Your task to perform on an android device: turn on javascript in the chrome app Image 0: 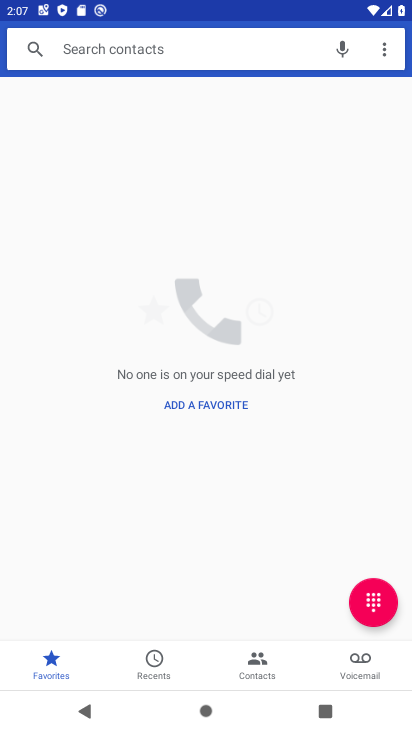
Step 0: press home button
Your task to perform on an android device: turn on javascript in the chrome app Image 1: 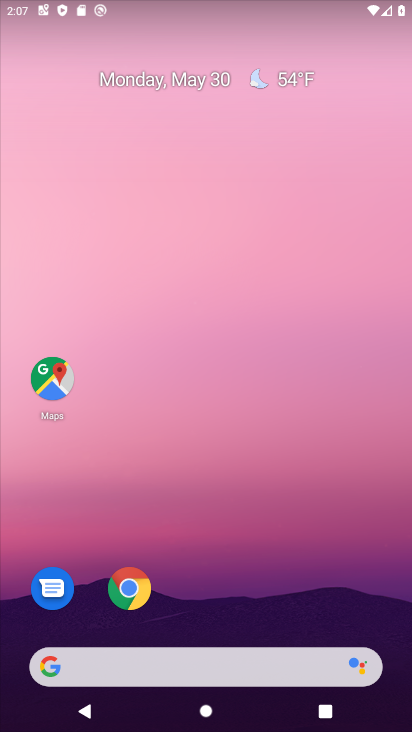
Step 1: click (134, 602)
Your task to perform on an android device: turn on javascript in the chrome app Image 2: 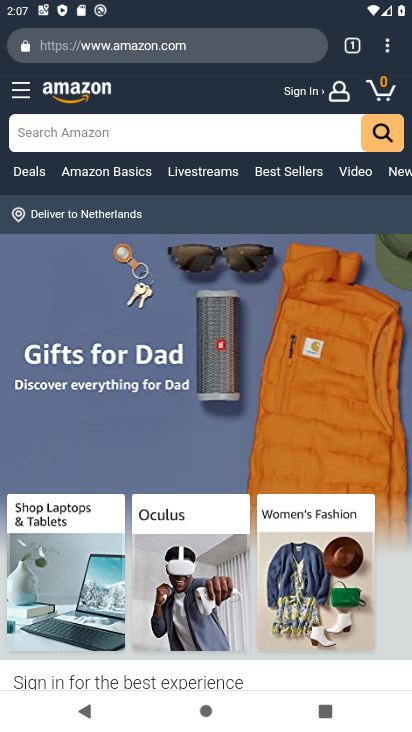
Step 2: click (380, 48)
Your task to perform on an android device: turn on javascript in the chrome app Image 3: 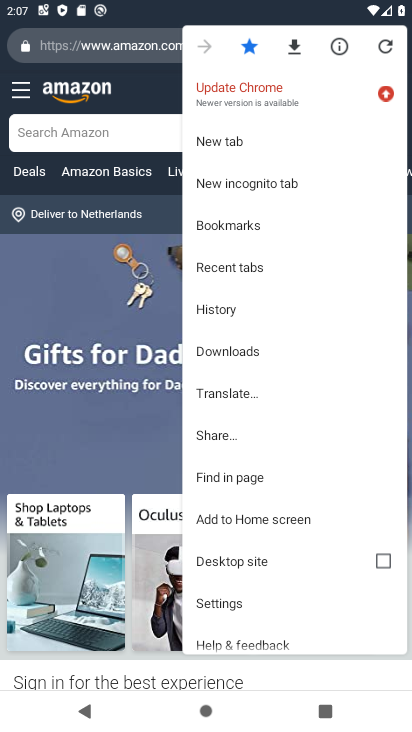
Step 3: click (248, 597)
Your task to perform on an android device: turn on javascript in the chrome app Image 4: 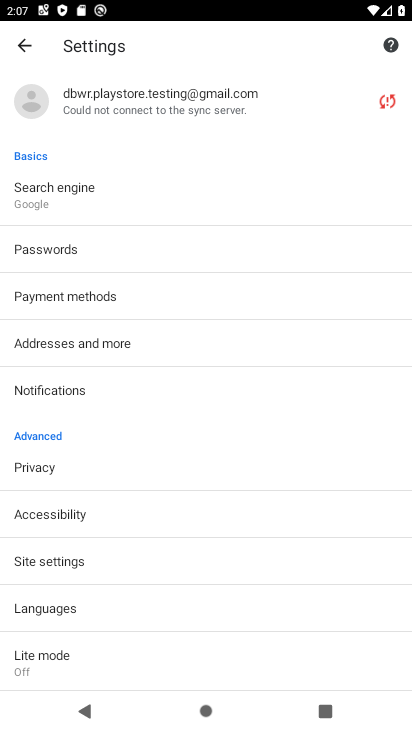
Step 4: click (48, 569)
Your task to perform on an android device: turn on javascript in the chrome app Image 5: 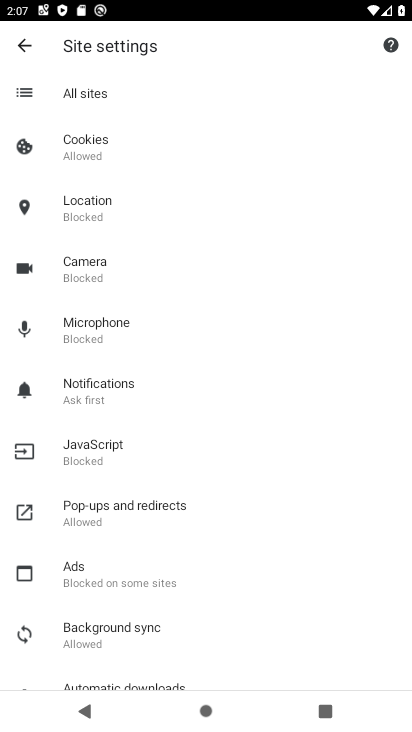
Step 5: click (99, 450)
Your task to perform on an android device: turn on javascript in the chrome app Image 6: 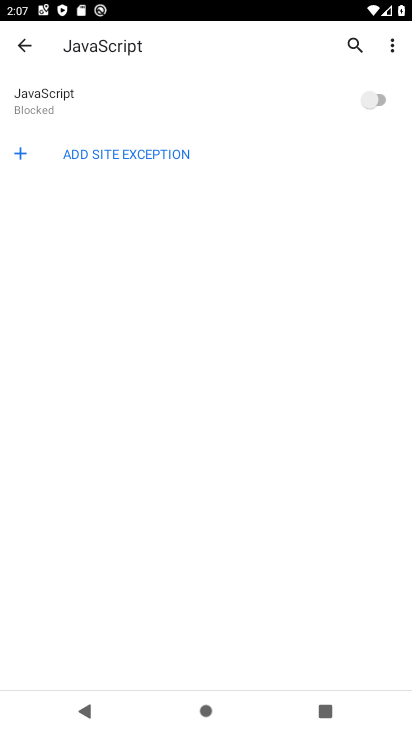
Step 6: click (365, 103)
Your task to perform on an android device: turn on javascript in the chrome app Image 7: 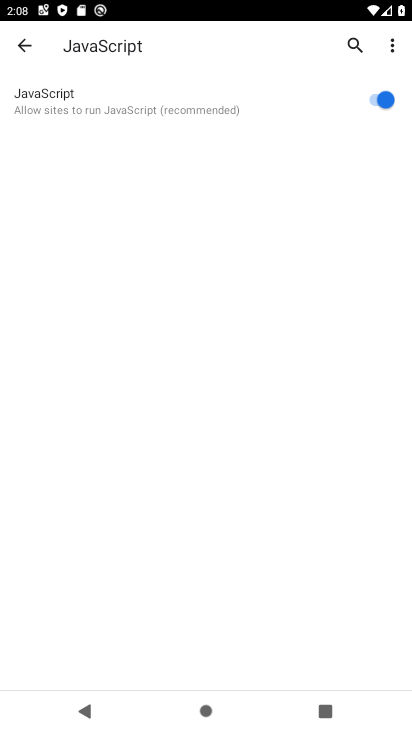
Step 7: task complete